Your task to perform on an android device: Search for usb-b on amazon, select the first entry, and add it to the cart. Image 0: 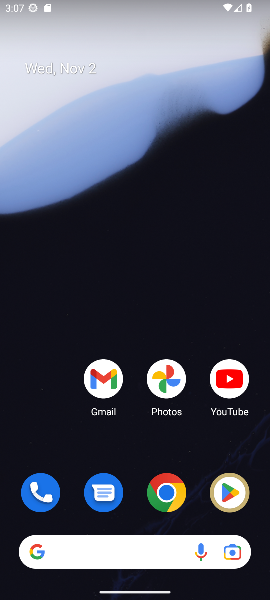
Step 0: click (169, 492)
Your task to perform on an android device: Search for usb-b on amazon, select the first entry, and add it to the cart. Image 1: 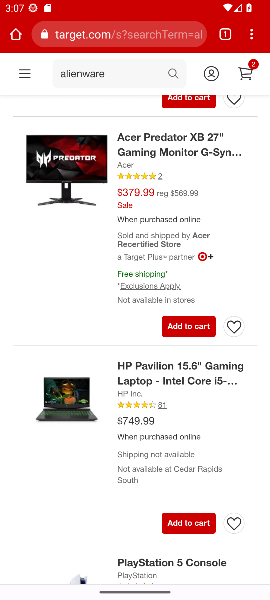
Step 1: click (152, 21)
Your task to perform on an android device: Search for usb-b on amazon, select the first entry, and add it to the cart. Image 2: 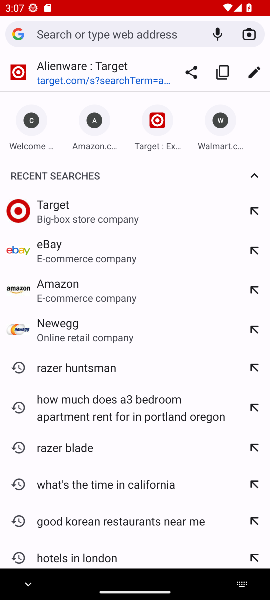
Step 2: type "amazon"
Your task to perform on an android device: Search for usb-b on amazon, select the first entry, and add it to the cart. Image 3: 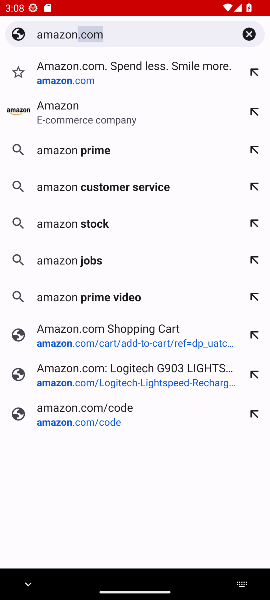
Step 3: click (61, 66)
Your task to perform on an android device: Search for usb-b on amazon, select the first entry, and add it to the cart. Image 4: 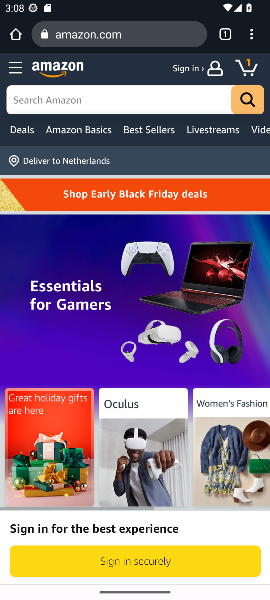
Step 4: click (55, 96)
Your task to perform on an android device: Search for usb-b on amazon, select the first entry, and add it to the cart. Image 5: 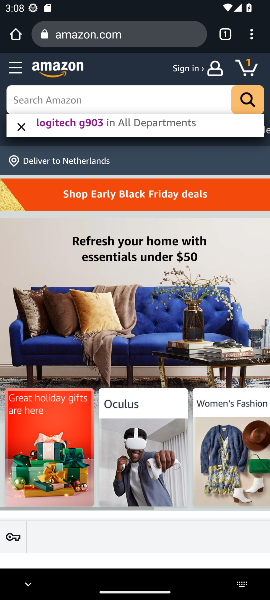
Step 5: type "usb-b"
Your task to perform on an android device: Search for usb-b on amazon, select the first entry, and add it to the cart. Image 6: 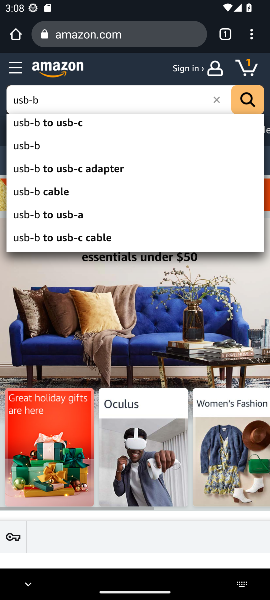
Step 6: click (36, 121)
Your task to perform on an android device: Search for usb-b on amazon, select the first entry, and add it to the cart. Image 7: 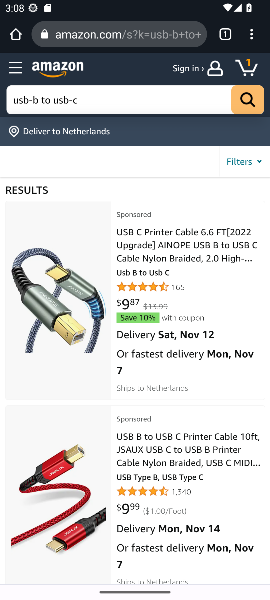
Step 7: click (141, 243)
Your task to perform on an android device: Search for usb-b on amazon, select the first entry, and add it to the cart. Image 8: 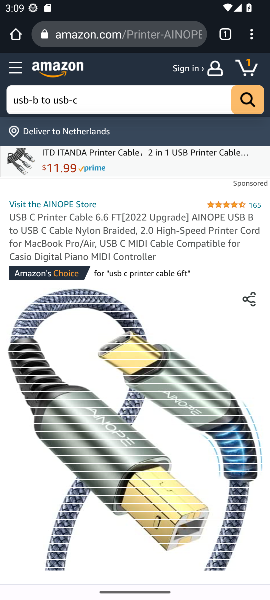
Step 8: drag from (180, 489) to (160, 225)
Your task to perform on an android device: Search for usb-b on amazon, select the first entry, and add it to the cart. Image 9: 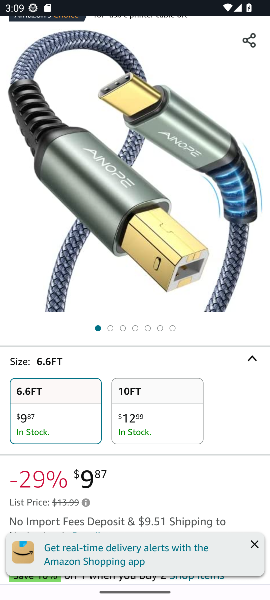
Step 9: drag from (201, 534) to (187, 202)
Your task to perform on an android device: Search for usb-b on amazon, select the first entry, and add it to the cart. Image 10: 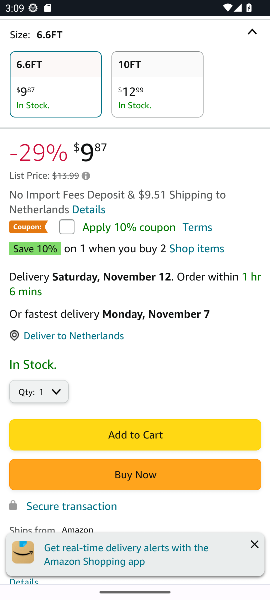
Step 10: click (131, 434)
Your task to perform on an android device: Search for usb-b on amazon, select the first entry, and add it to the cart. Image 11: 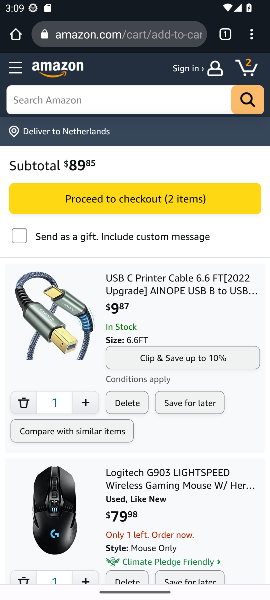
Step 11: click (136, 196)
Your task to perform on an android device: Search for usb-b on amazon, select the first entry, and add it to the cart. Image 12: 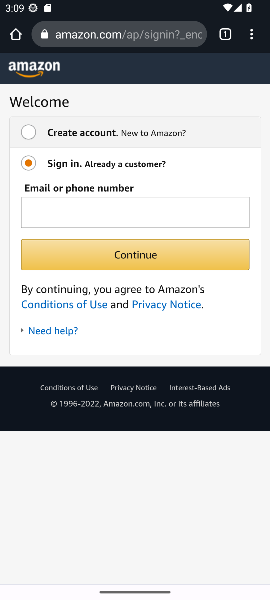
Step 12: task complete